Your task to perform on an android device: set the stopwatch Image 0: 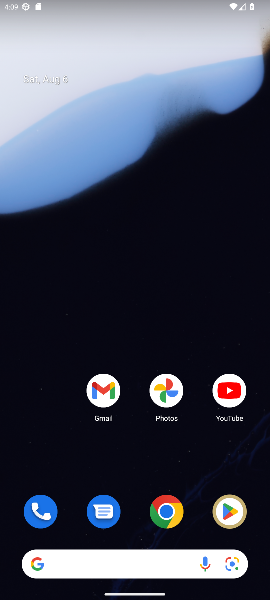
Step 0: drag from (99, 528) to (118, 14)
Your task to perform on an android device: set the stopwatch Image 1: 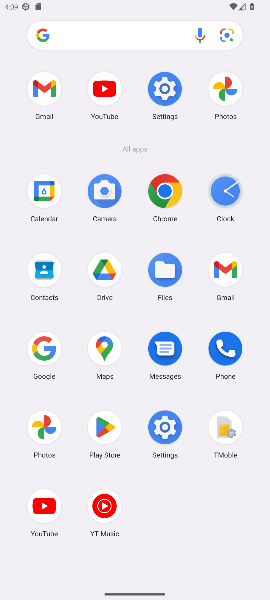
Step 1: click (221, 189)
Your task to perform on an android device: set the stopwatch Image 2: 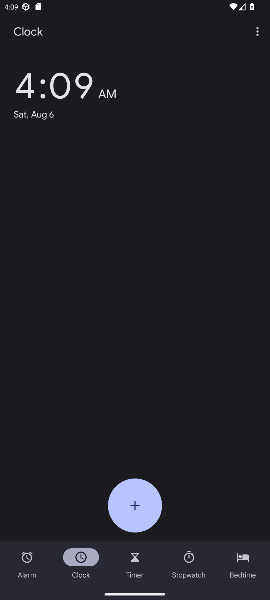
Step 2: click (186, 566)
Your task to perform on an android device: set the stopwatch Image 3: 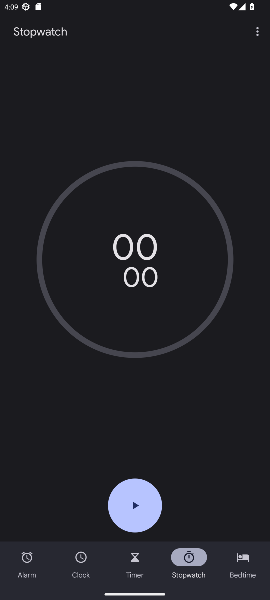
Step 3: click (146, 505)
Your task to perform on an android device: set the stopwatch Image 4: 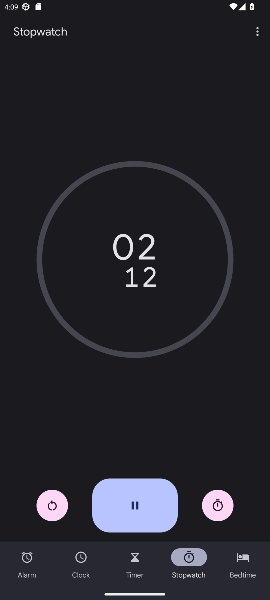
Step 4: task complete